Your task to perform on an android device: turn vacation reply on in the gmail app Image 0: 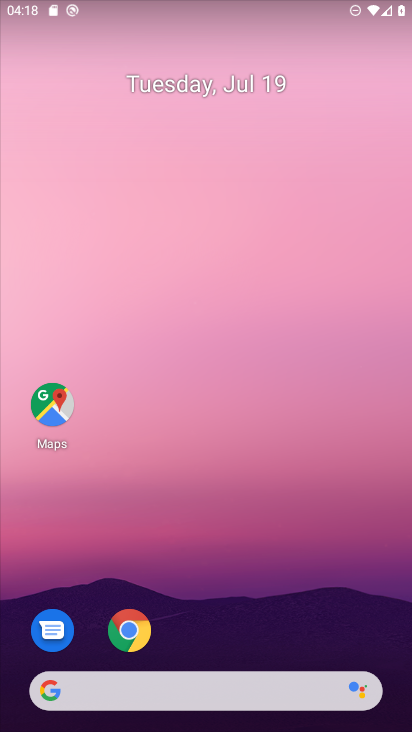
Step 0: drag from (212, 520) to (212, 114)
Your task to perform on an android device: turn vacation reply on in the gmail app Image 1: 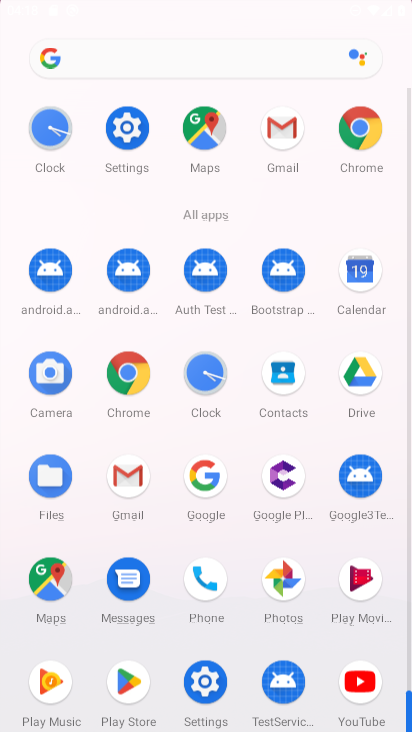
Step 1: drag from (266, 527) to (246, 115)
Your task to perform on an android device: turn vacation reply on in the gmail app Image 2: 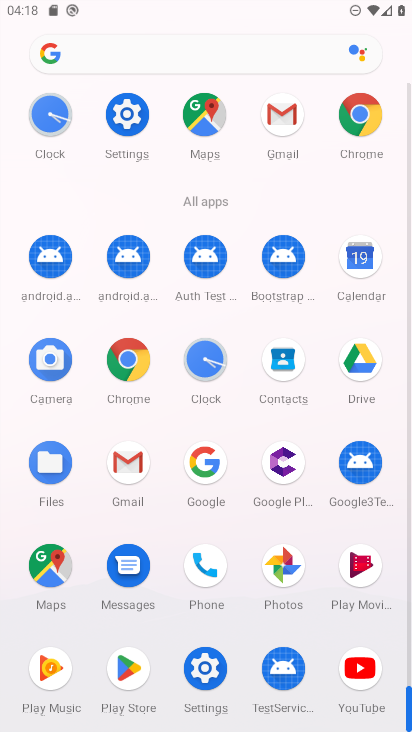
Step 2: click (132, 475)
Your task to perform on an android device: turn vacation reply on in the gmail app Image 3: 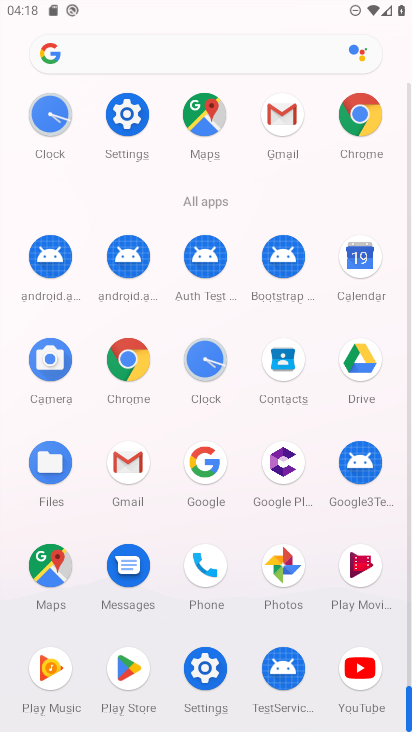
Step 3: click (132, 474)
Your task to perform on an android device: turn vacation reply on in the gmail app Image 4: 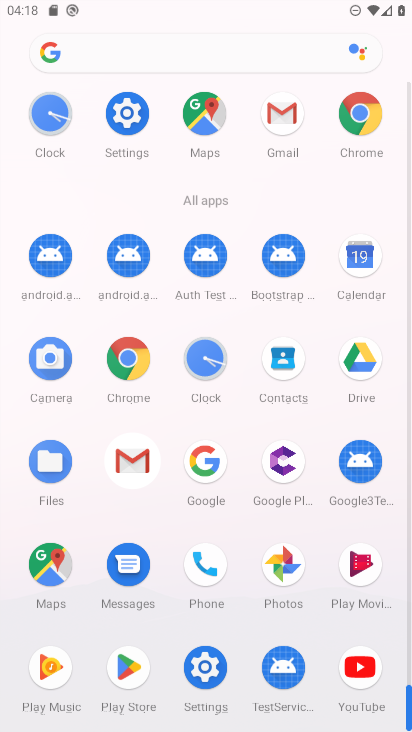
Step 4: click (132, 472)
Your task to perform on an android device: turn vacation reply on in the gmail app Image 5: 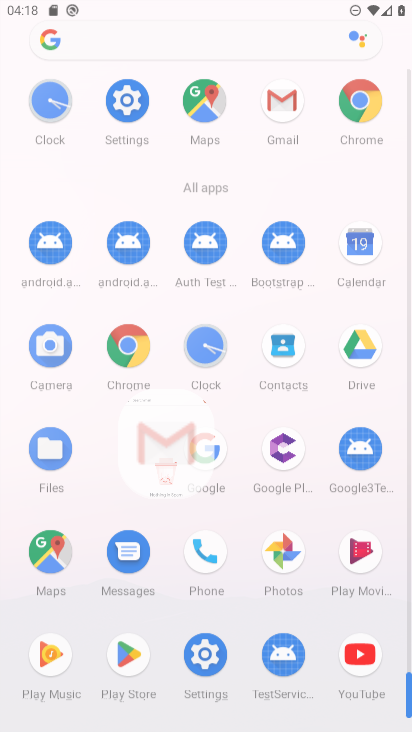
Step 5: click (129, 460)
Your task to perform on an android device: turn vacation reply on in the gmail app Image 6: 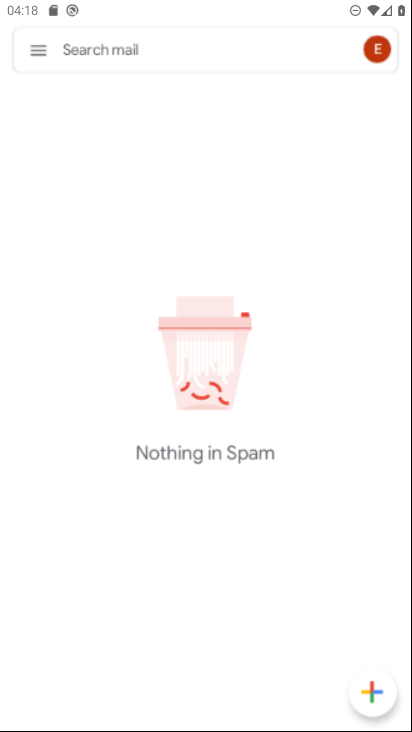
Step 6: click (128, 452)
Your task to perform on an android device: turn vacation reply on in the gmail app Image 7: 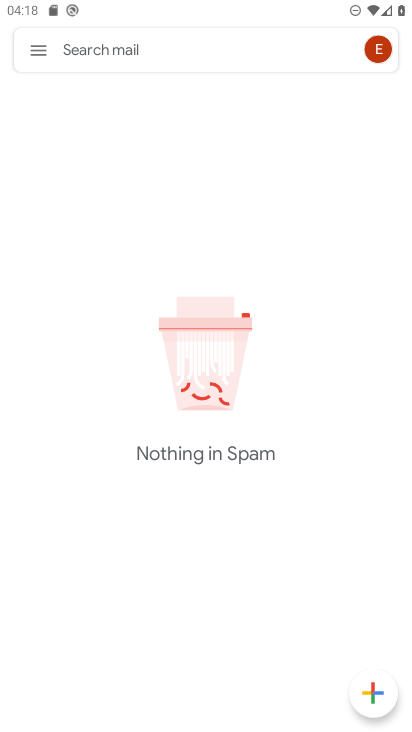
Step 7: click (34, 49)
Your task to perform on an android device: turn vacation reply on in the gmail app Image 8: 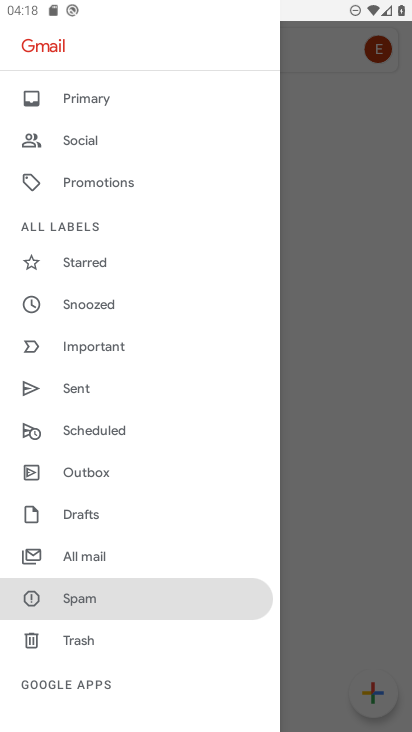
Step 8: drag from (97, 624) to (91, 238)
Your task to perform on an android device: turn vacation reply on in the gmail app Image 9: 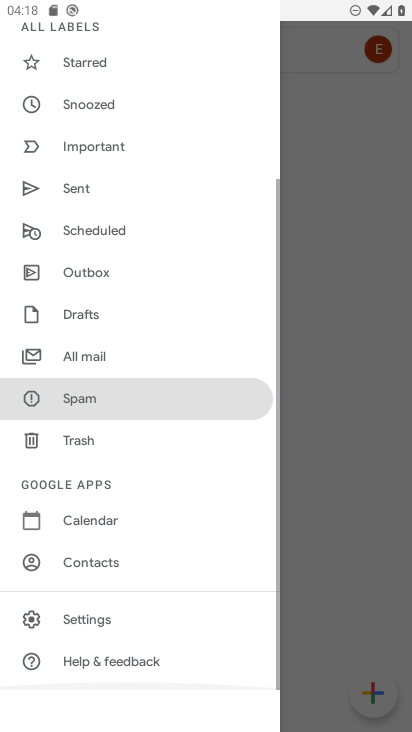
Step 9: drag from (111, 499) to (113, 272)
Your task to perform on an android device: turn vacation reply on in the gmail app Image 10: 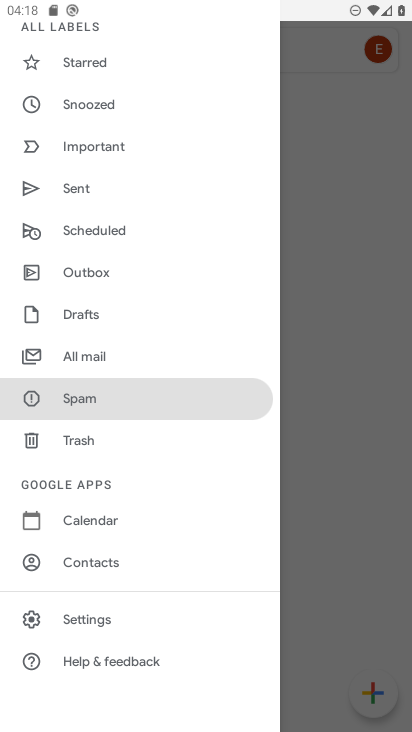
Step 10: click (90, 622)
Your task to perform on an android device: turn vacation reply on in the gmail app Image 11: 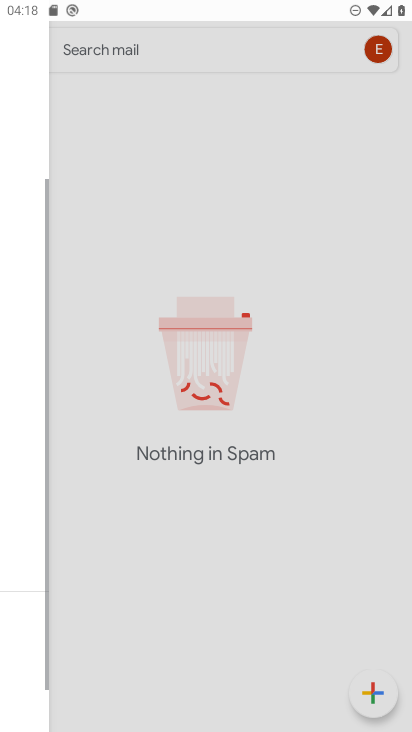
Step 11: click (88, 612)
Your task to perform on an android device: turn vacation reply on in the gmail app Image 12: 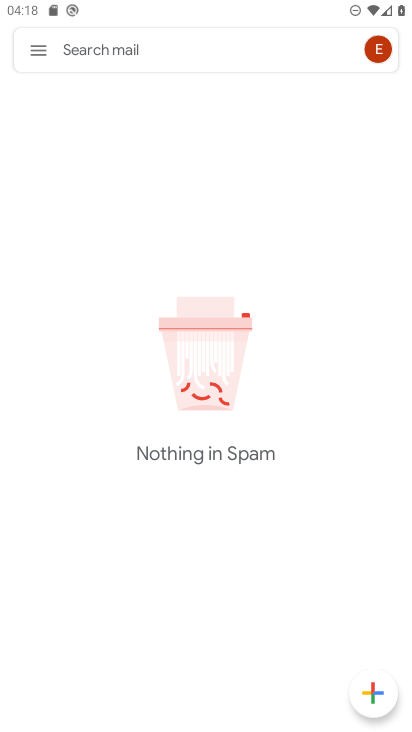
Step 12: click (88, 612)
Your task to perform on an android device: turn vacation reply on in the gmail app Image 13: 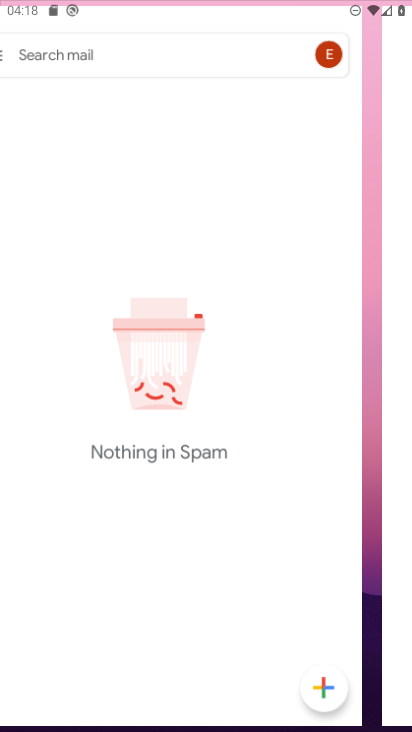
Step 13: click (89, 613)
Your task to perform on an android device: turn vacation reply on in the gmail app Image 14: 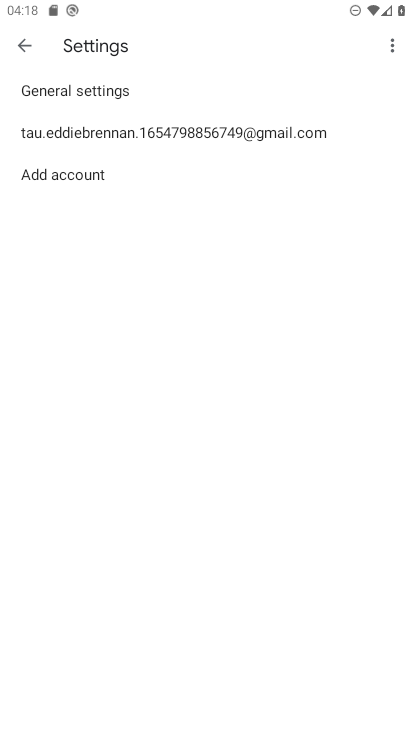
Step 14: click (109, 119)
Your task to perform on an android device: turn vacation reply on in the gmail app Image 15: 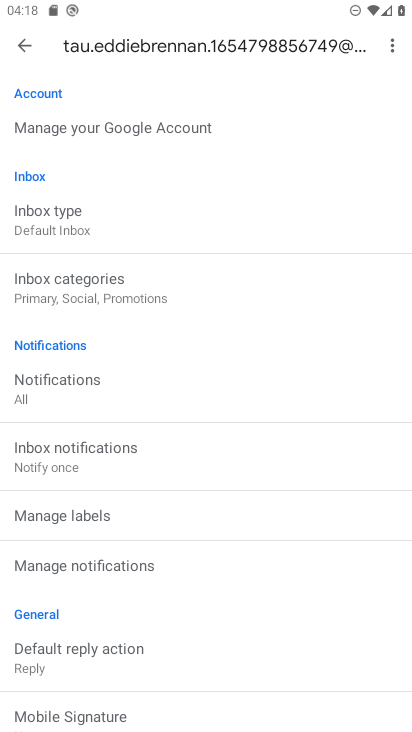
Step 15: drag from (91, 616) to (104, 301)
Your task to perform on an android device: turn vacation reply on in the gmail app Image 16: 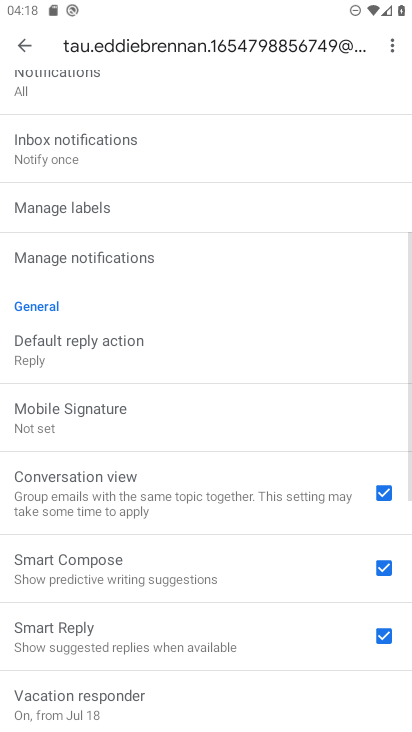
Step 16: click (182, 328)
Your task to perform on an android device: turn vacation reply on in the gmail app Image 17: 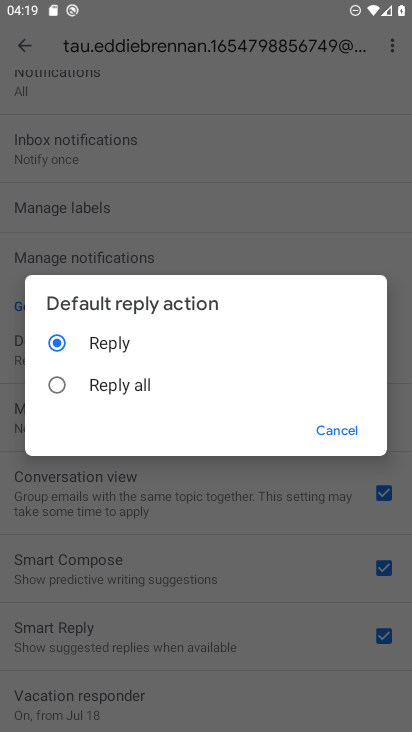
Step 17: click (340, 427)
Your task to perform on an android device: turn vacation reply on in the gmail app Image 18: 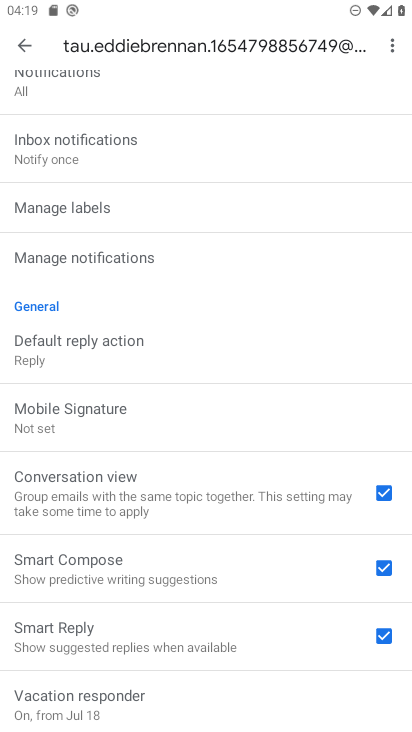
Step 18: click (329, 424)
Your task to perform on an android device: turn vacation reply on in the gmail app Image 19: 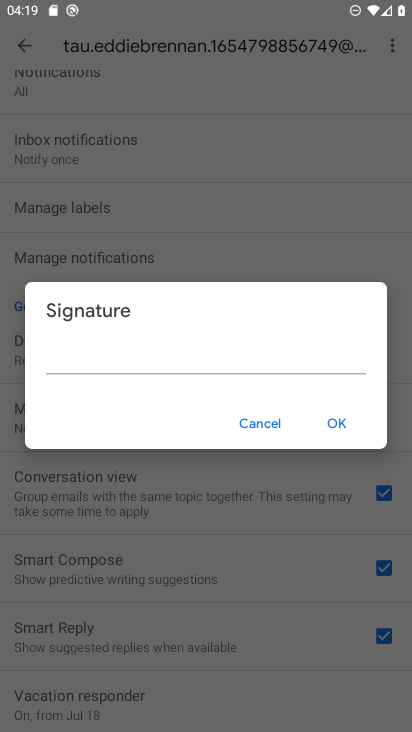
Step 19: click (330, 419)
Your task to perform on an android device: turn vacation reply on in the gmail app Image 20: 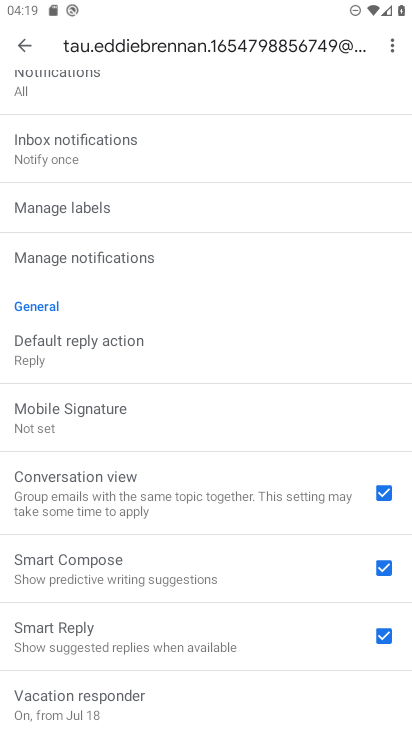
Step 20: task complete